Your task to perform on an android device: What is the recent news? Image 0: 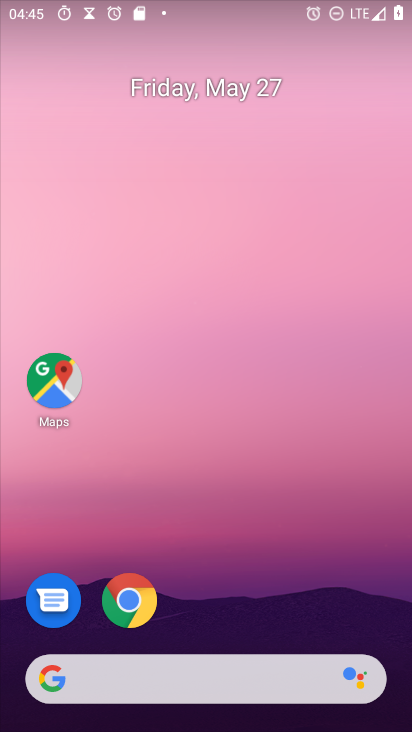
Step 0: drag from (3, 231) to (412, 213)
Your task to perform on an android device: What is the recent news? Image 1: 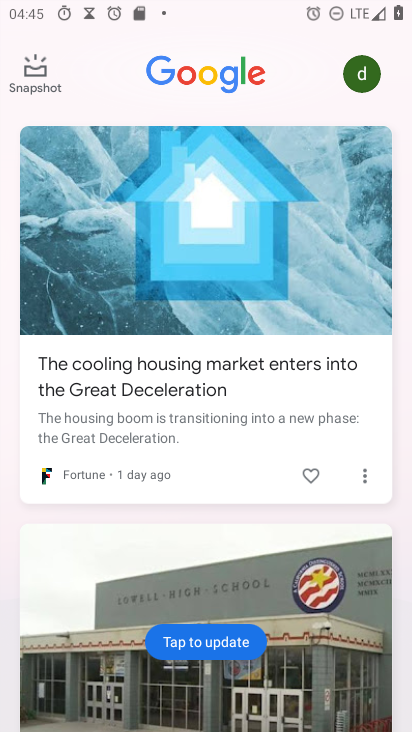
Step 1: task complete